Your task to perform on an android device: Open wifi settings Image 0: 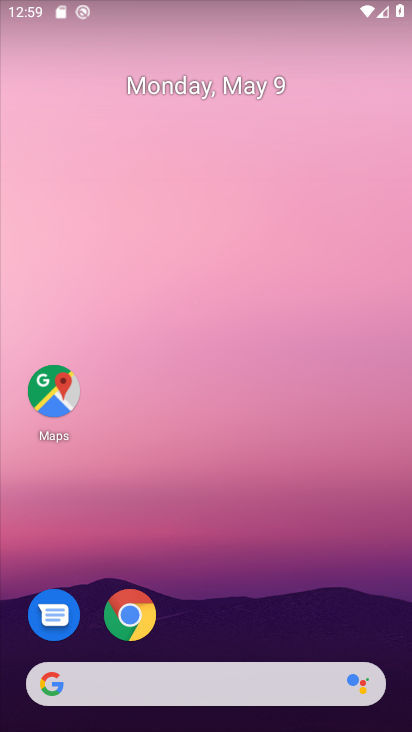
Step 0: drag from (246, 650) to (324, 257)
Your task to perform on an android device: Open wifi settings Image 1: 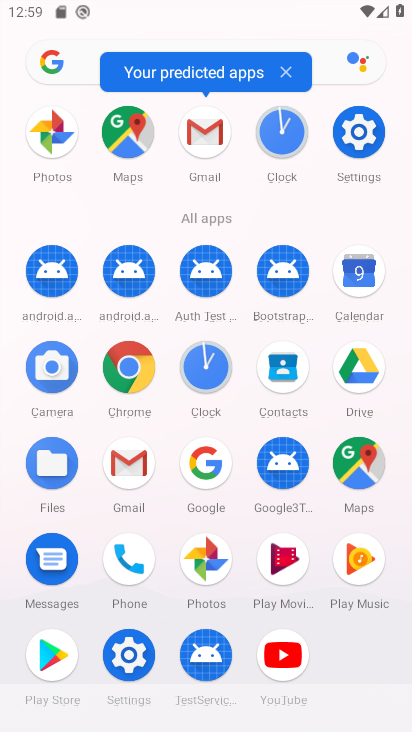
Step 1: click (361, 133)
Your task to perform on an android device: Open wifi settings Image 2: 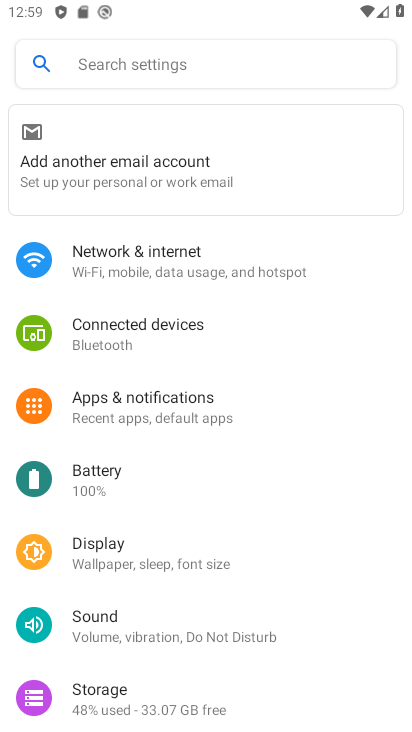
Step 2: click (198, 271)
Your task to perform on an android device: Open wifi settings Image 3: 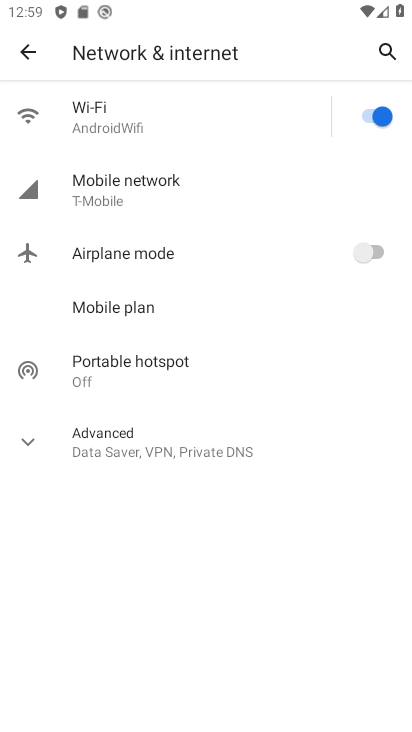
Step 3: click (207, 126)
Your task to perform on an android device: Open wifi settings Image 4: 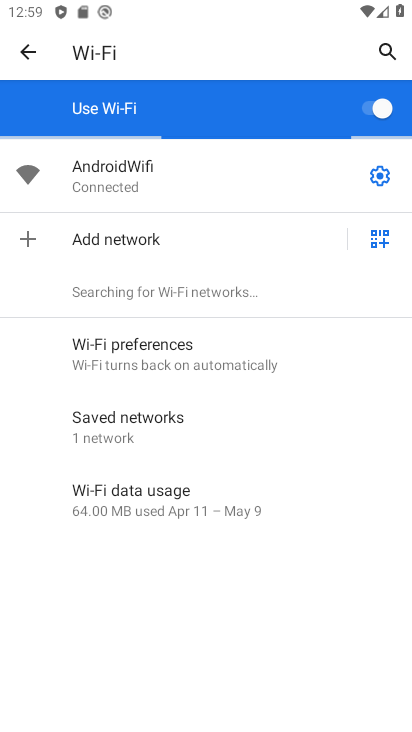
Step 4: task complete